Your task to perform on an android device: check google app version Image 0: 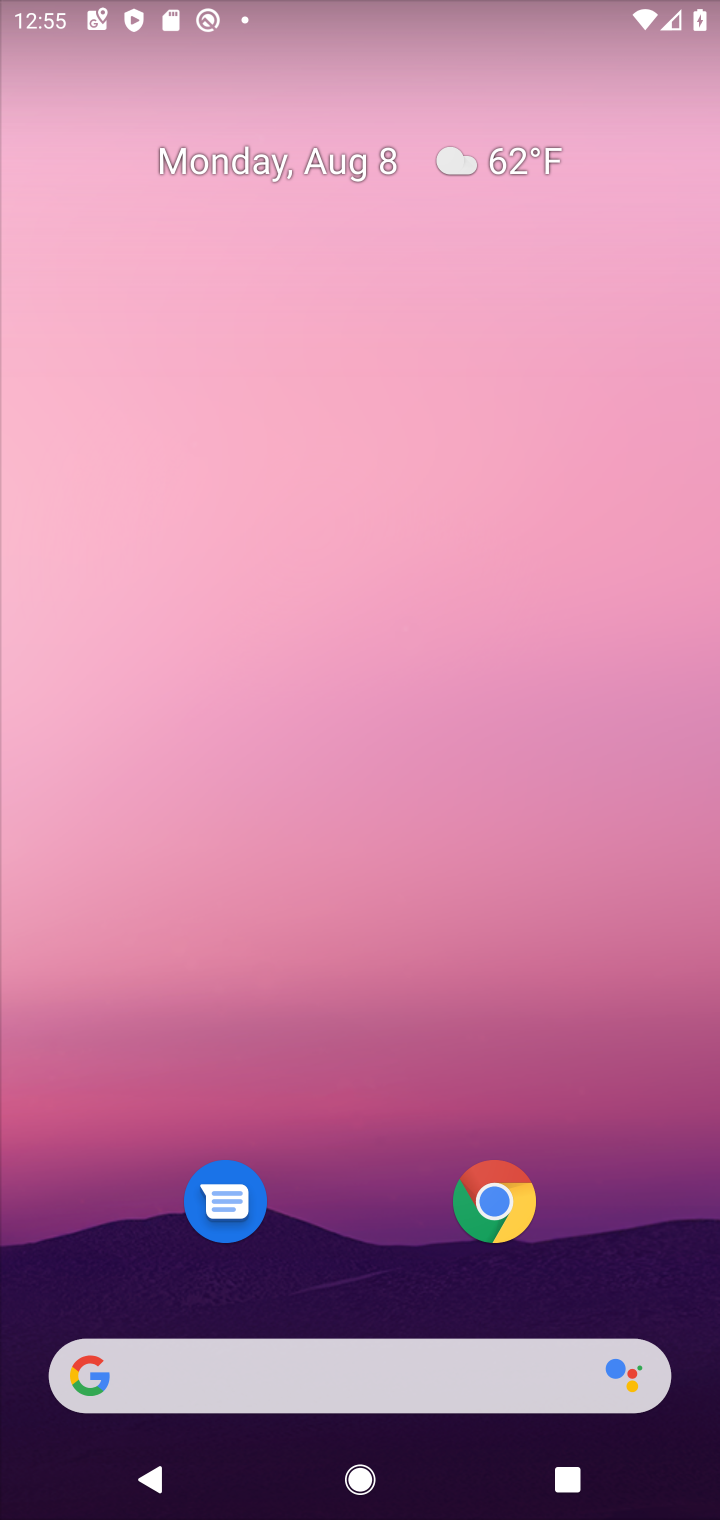
Step 0: drag from (496, 1304) to (344, 350)
Your task to perform on an android device: check google app version Image 1: 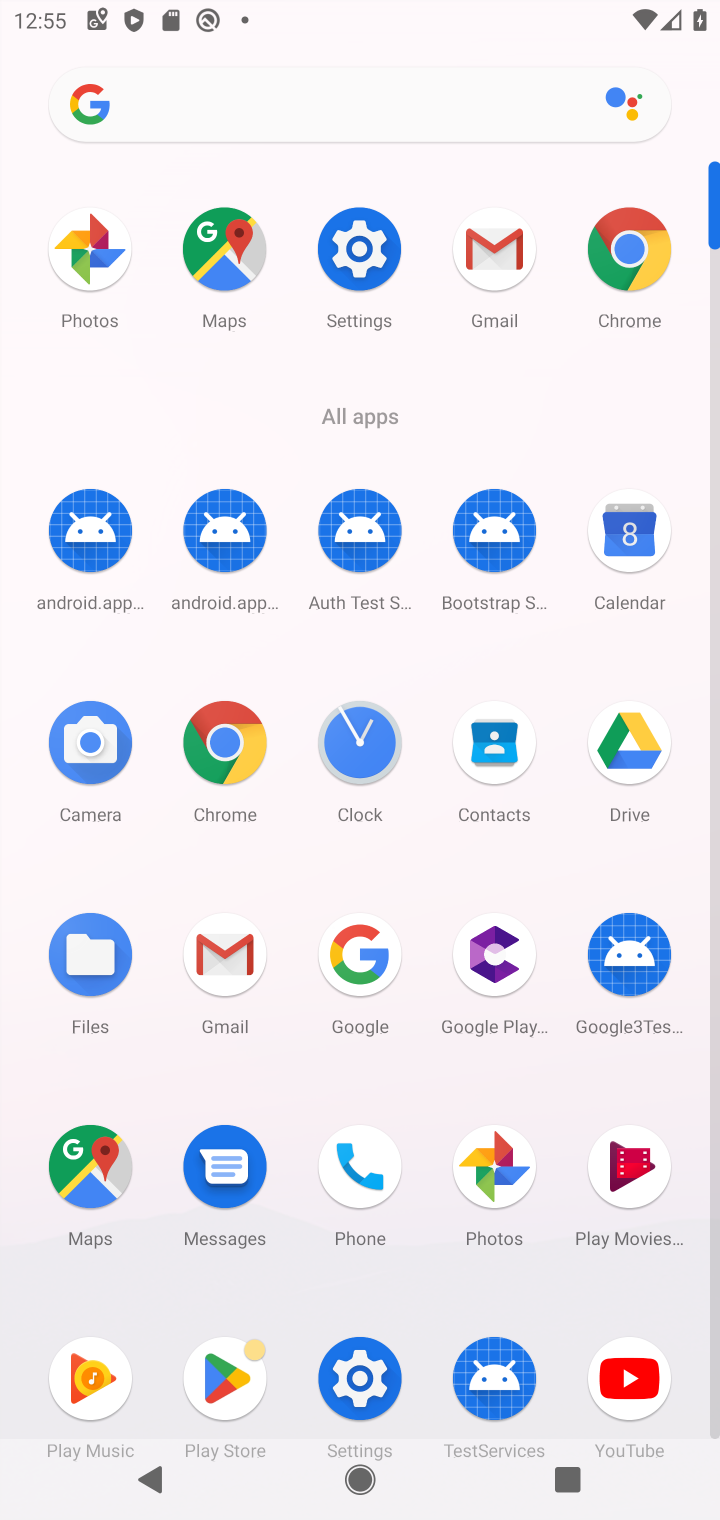
Step 1: click (637, 254)
Your task to perform on an android device: check google app version Image 2: 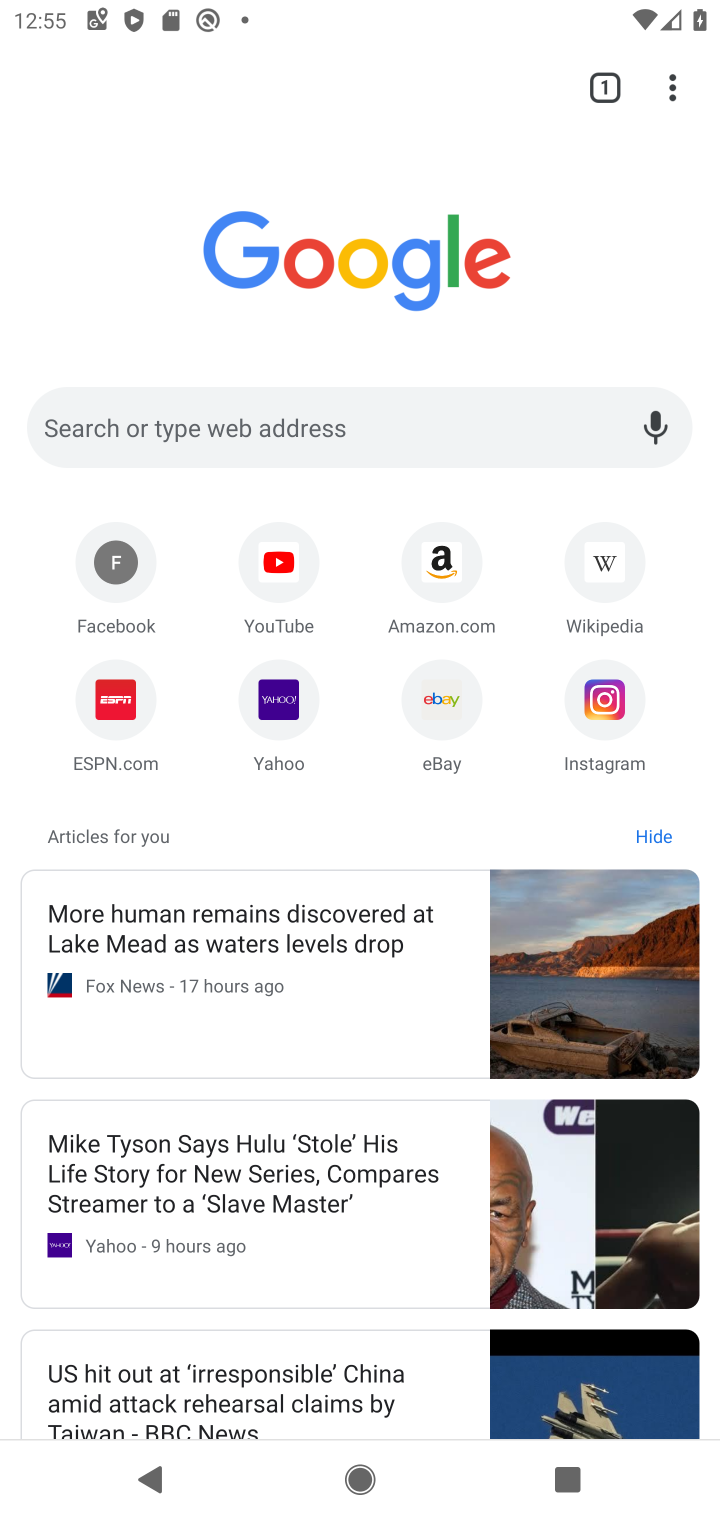
Step 2: click (674, 103)
Your task to perform on an android device: check google app version Image 3: 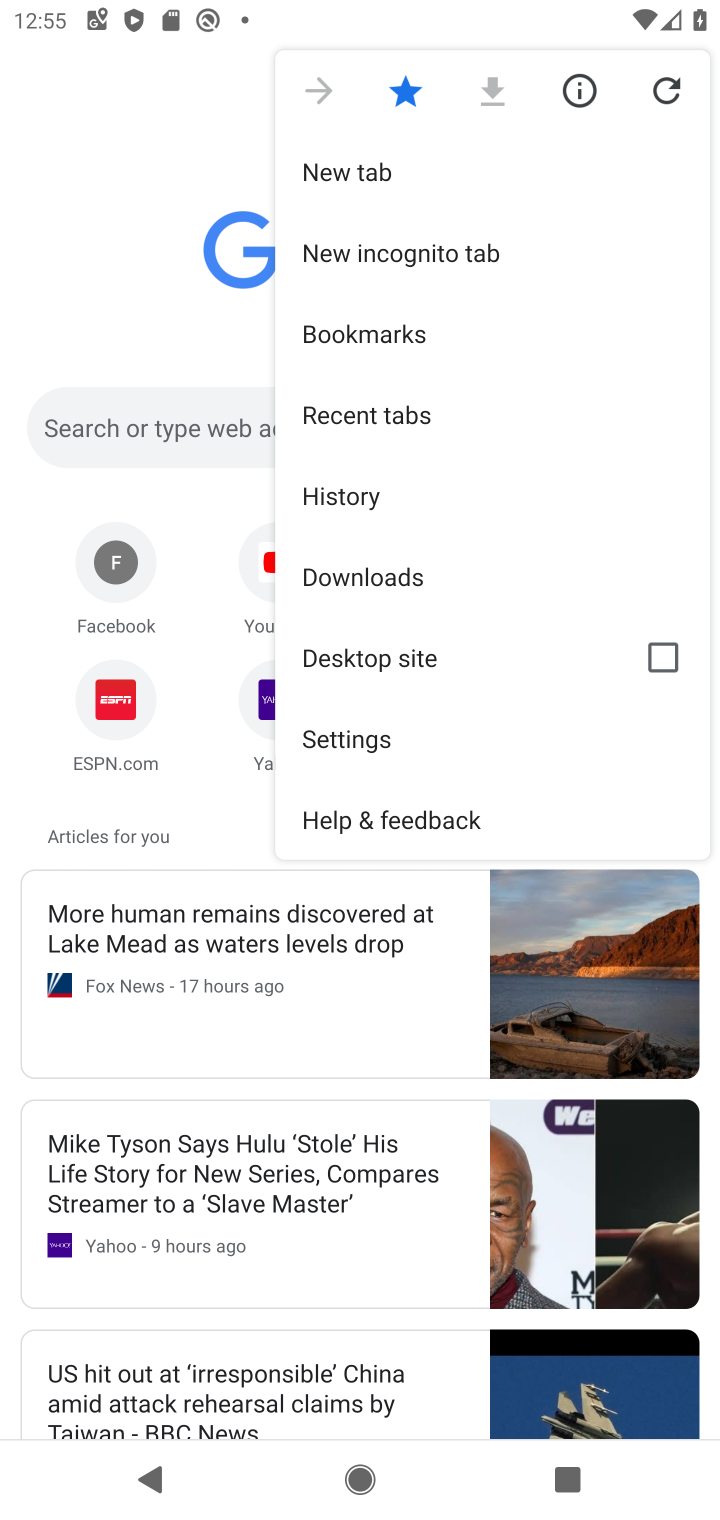
Step 3: click (360, 733)
Your task to perform on an android device: check google app version Image 4: 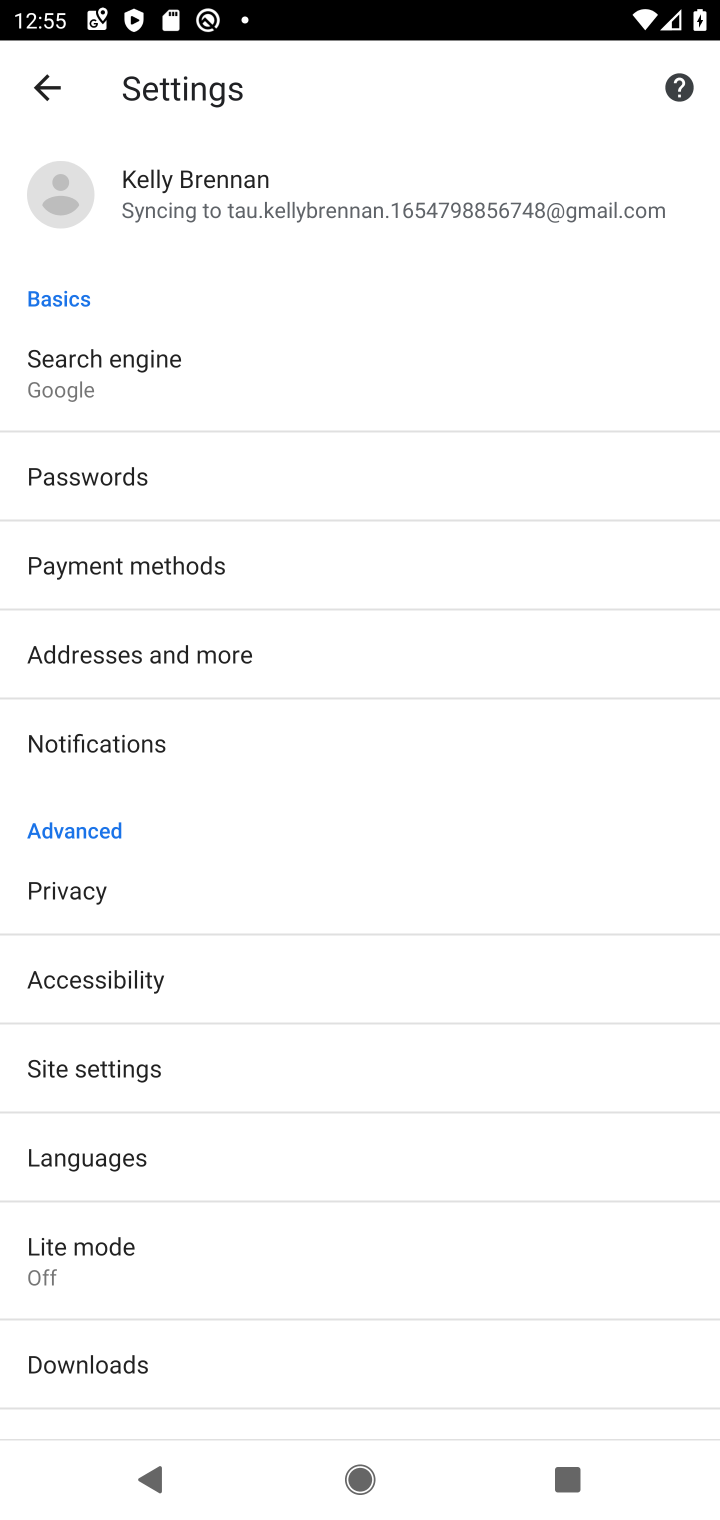
Step 4: drag from (308, 1283) to (249, 710)
Your task to perform on an android device: check google app version Image 5: 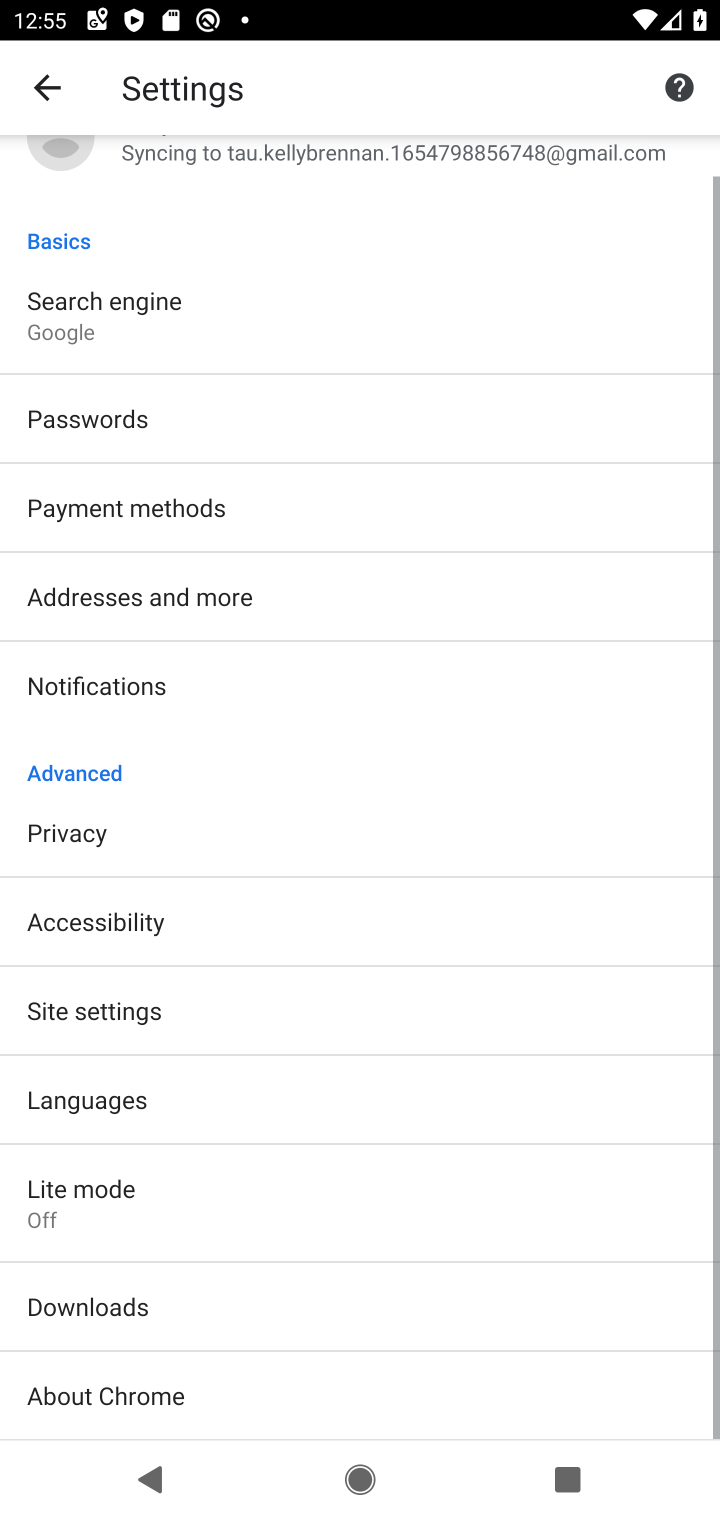
Step 5: click (240, 1394)
Your task to perform on an android device: check google app version Image 6: 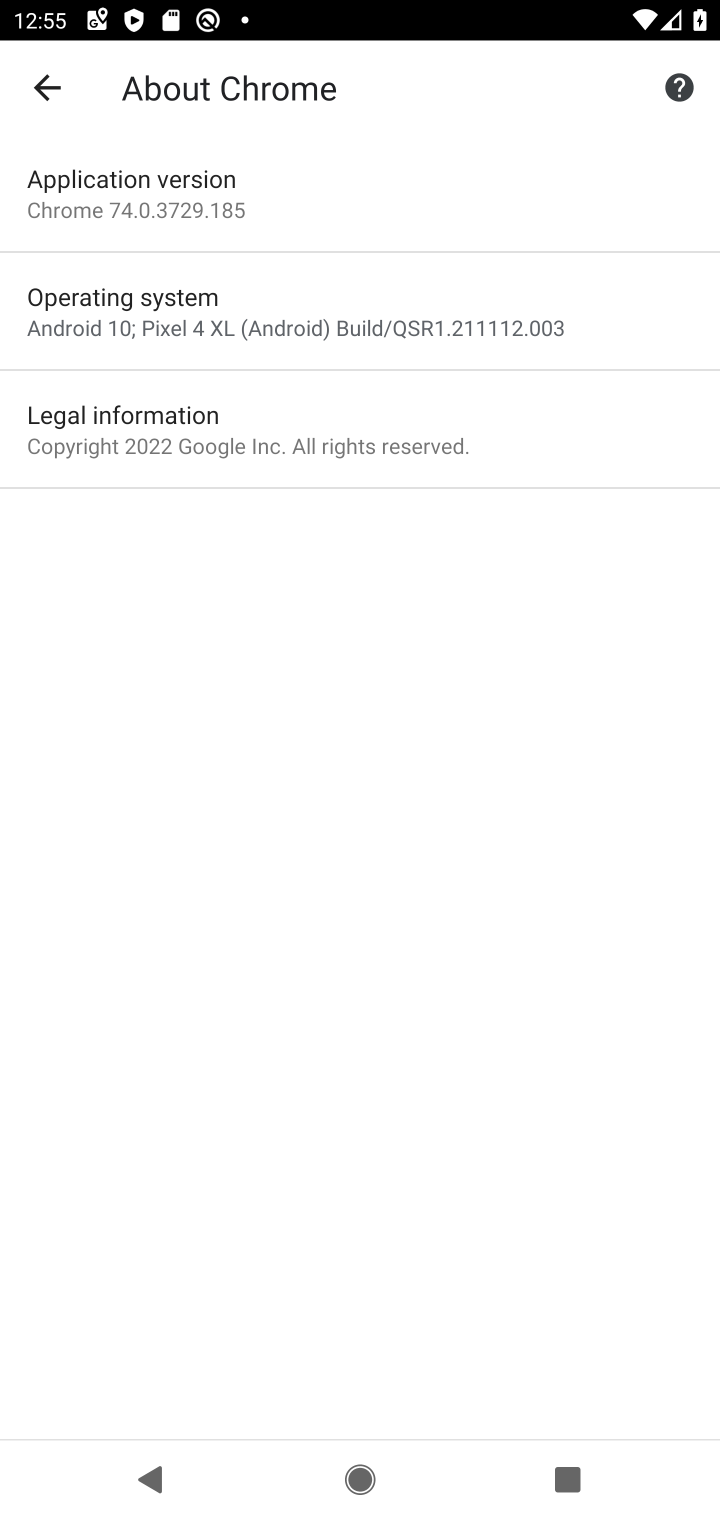
Step 6: click (199, 171)
Your task to perform on an android device: check google app version Image 7: 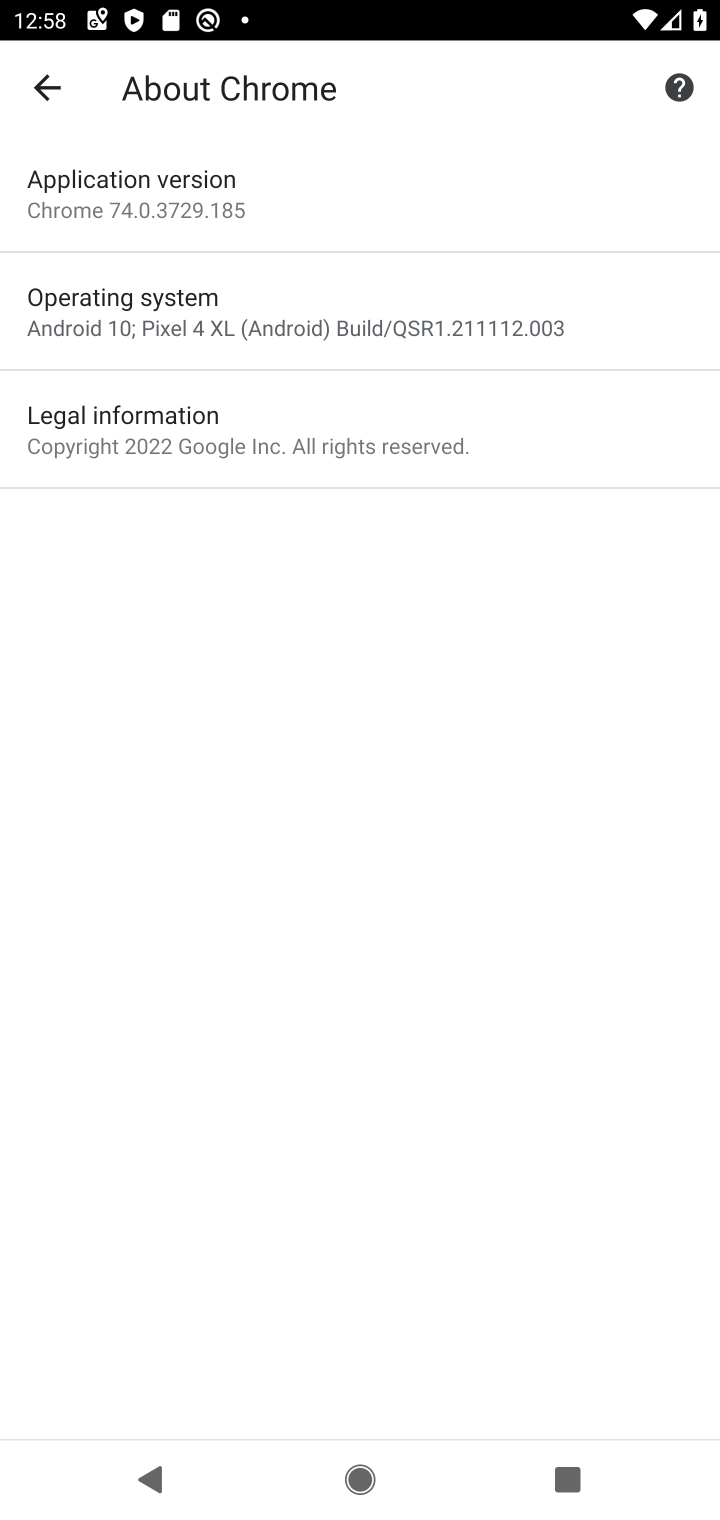
Step 7: task complete